Your task to perform on an android device: turn on location history Image 0: 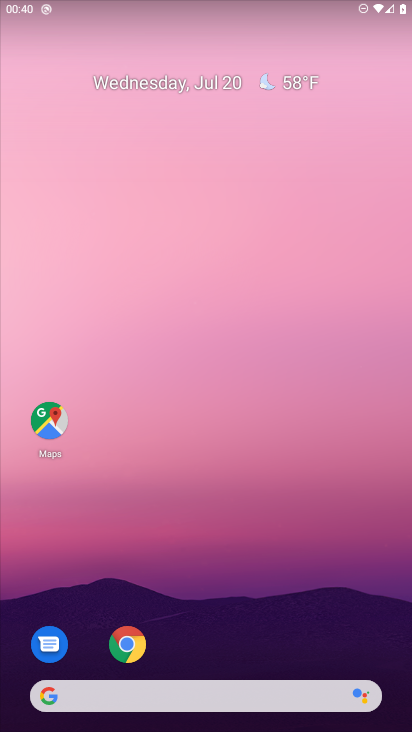
Step 0: drag from (2, 704) to (209, 89)
Your task to perform on an android device: turn on location history Image 1: 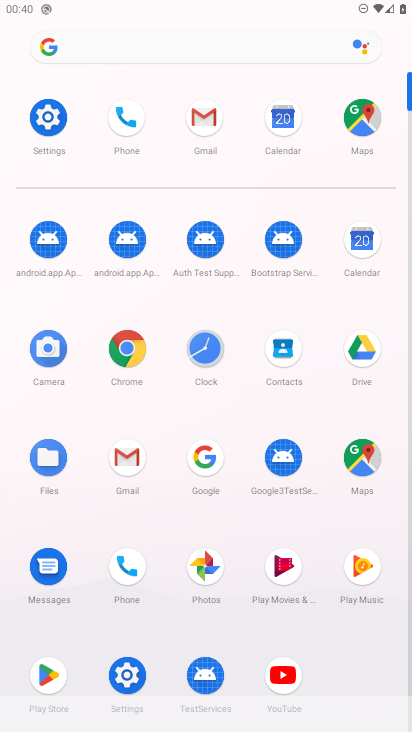
Step 1: click (126, 684)
Your task to perform on an android device: turn on location history Image 2: 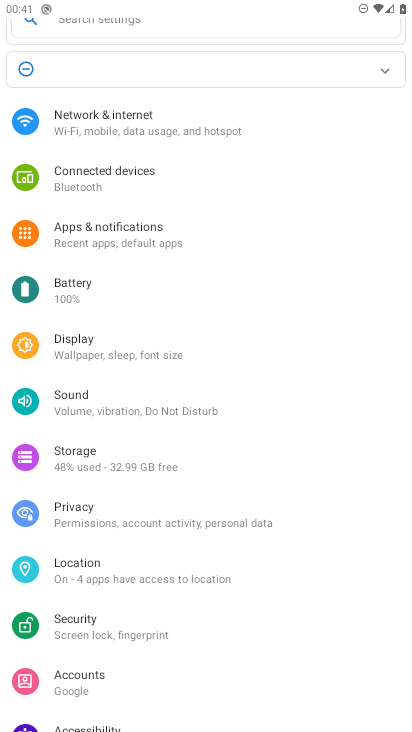
Step 2: click (131, 569)
Your task to perform on an android device: turn on location history Image 3: 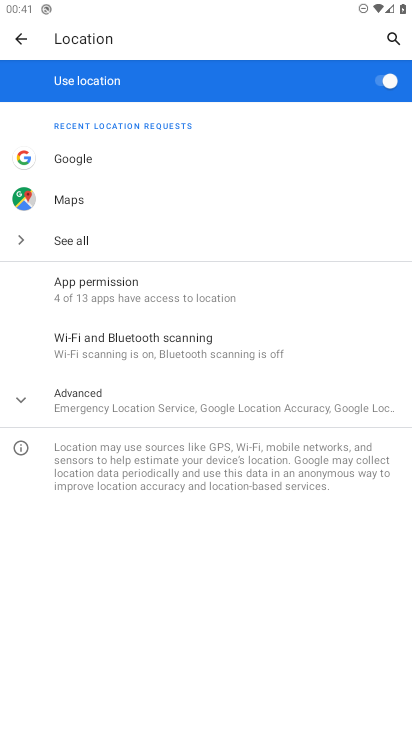
Step 3: click (99, 414)
Your task to perform on an android device: turn on location history Image 4: 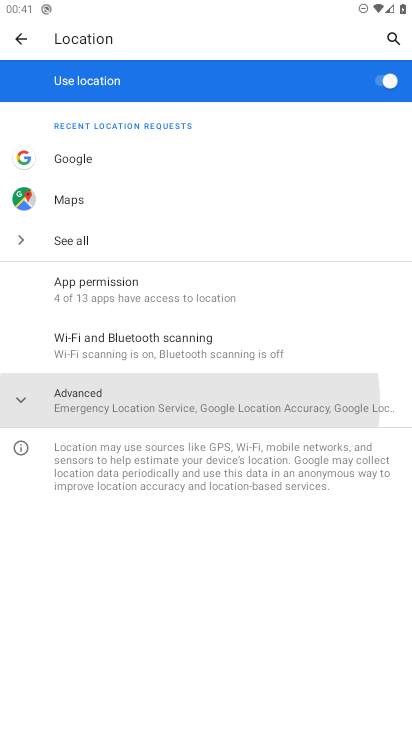
Step 4: click (98, 389)
Your task to perform on an android device: turn on location history Image 5: 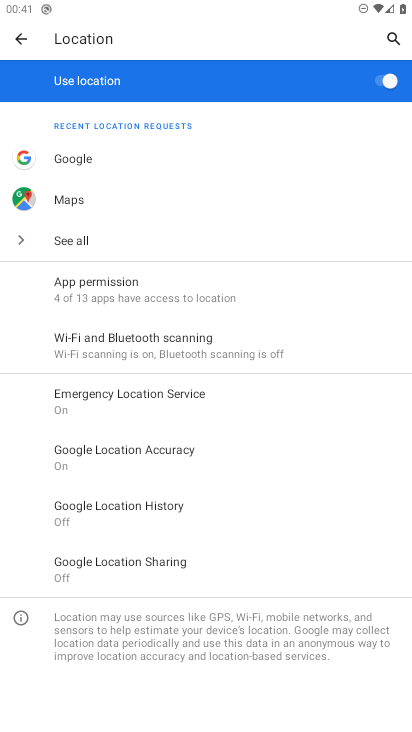
Step 5: click (138, 506)
Your task to perform on an android device: turn on location history Image 6: 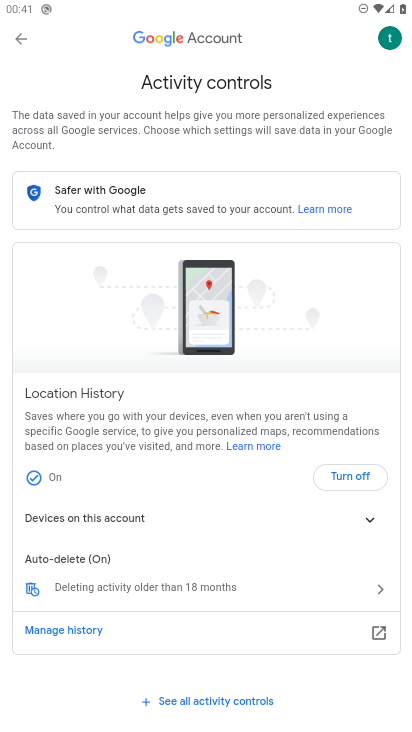
Step 6: click (336, 475)
Your task to perform on an android device: turn on location history Image 7: 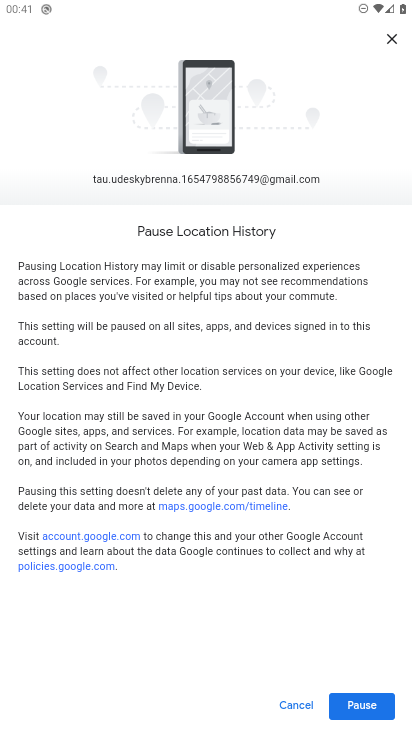
Step 7: click (358, 701)
Your task to perform on an android device: turn on location history Image 8: 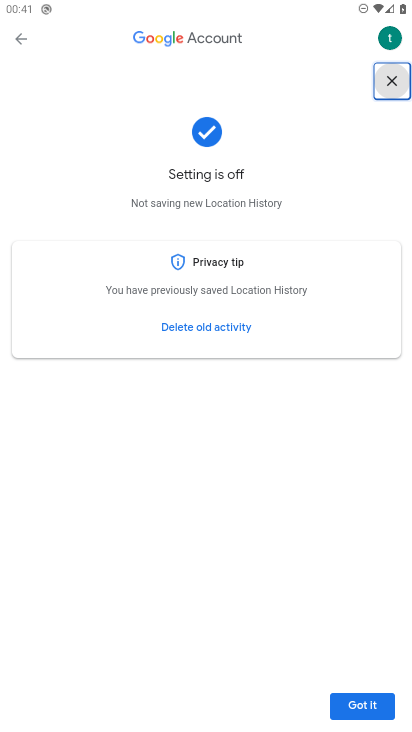
Step 8: click (347, 717)
Your task to perform on an android device: turn on location history Image 9: 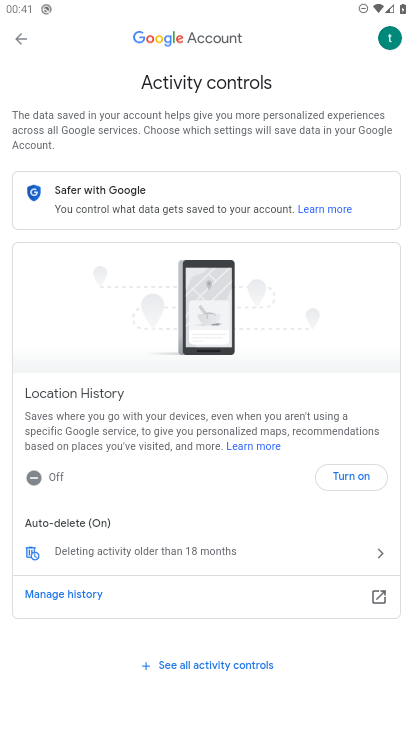
Step 9: click (354, 477)
Your task to perform on an android device: turn on location history Image 10: 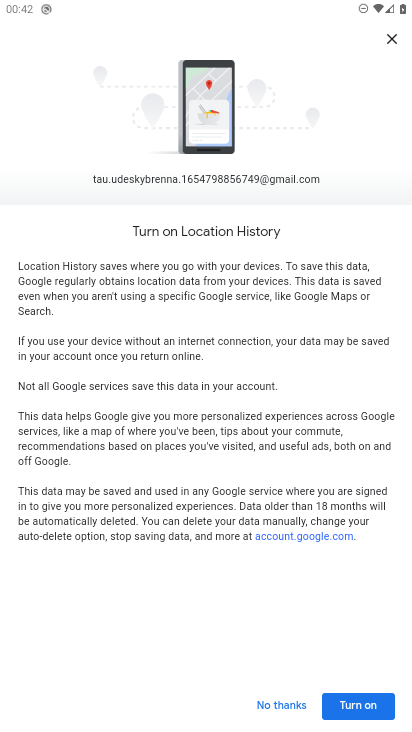
Step 10: click (344, 709)
Your task to perform on an android device: turn on location history Image 11: 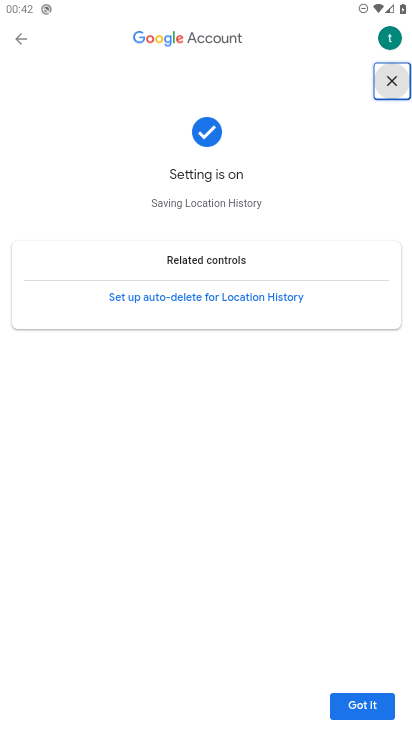
Step 11: click (379, 689)
Your task to perform on an android device: turn on location history Image 12: 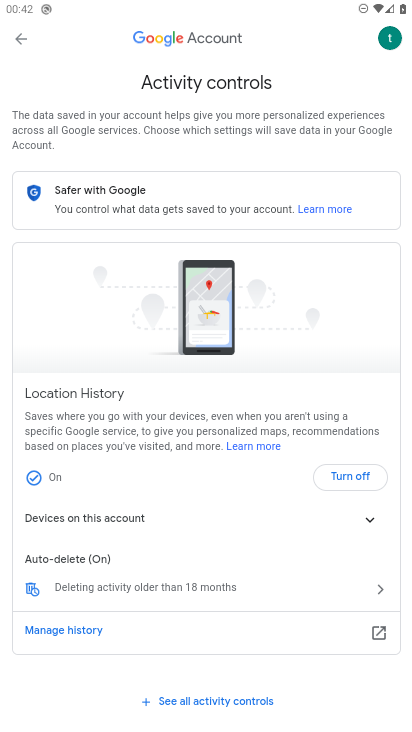
Step 12: task complete